Your task to perform on an android device: open app "Grab" (install if not already installed) Image 0: 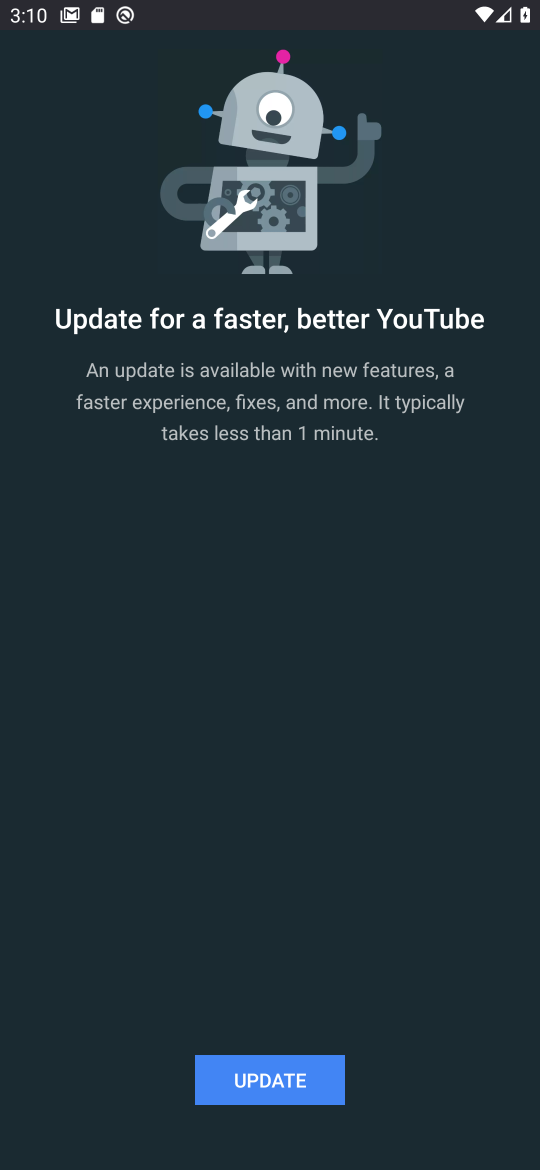
Step 0: press home button
Your task to perform on an android device: open app "Grab" (install if not already installed) Image 1: 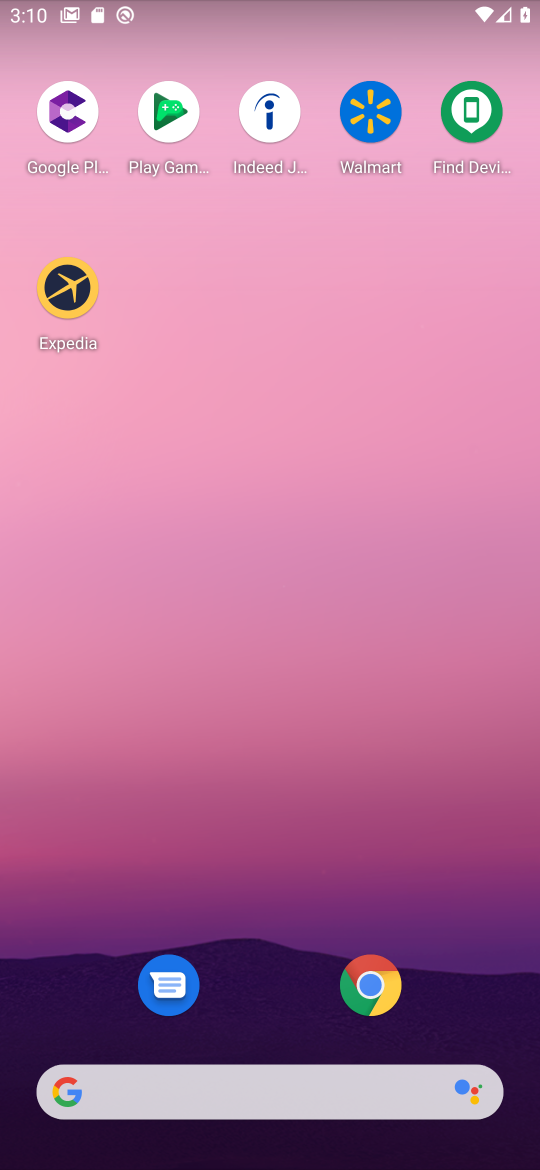
Step 1: drag from (211, 951) to (365, 8)
Your task to perform on an android device: open app "Grab" (install if not already installed) Image 2: 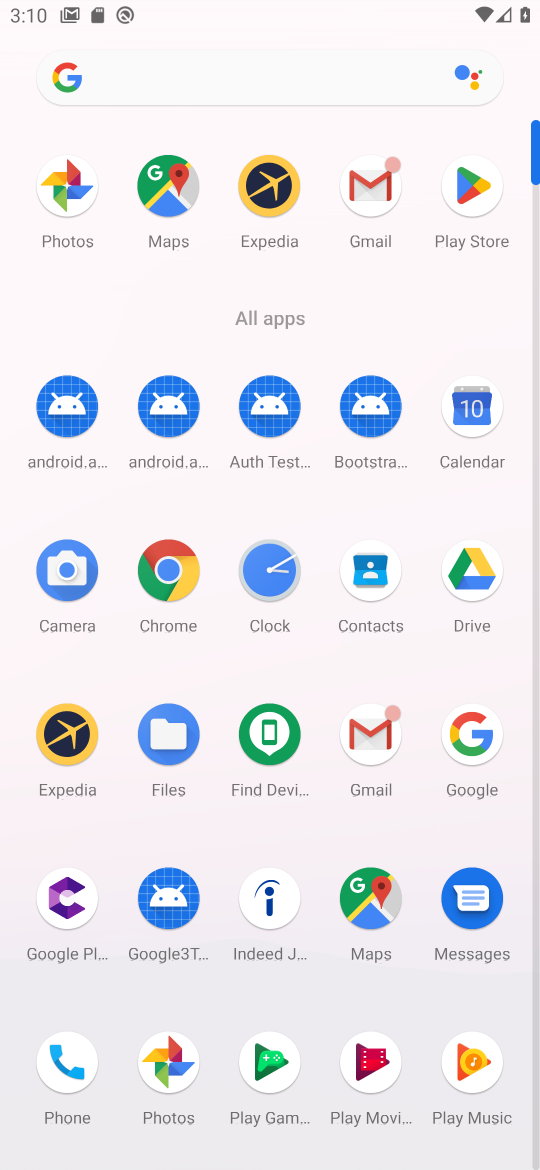
Step 2: click (474, 214)
Your task to perform on an android device: open app "Grab" (install if not already installed) Image 3: 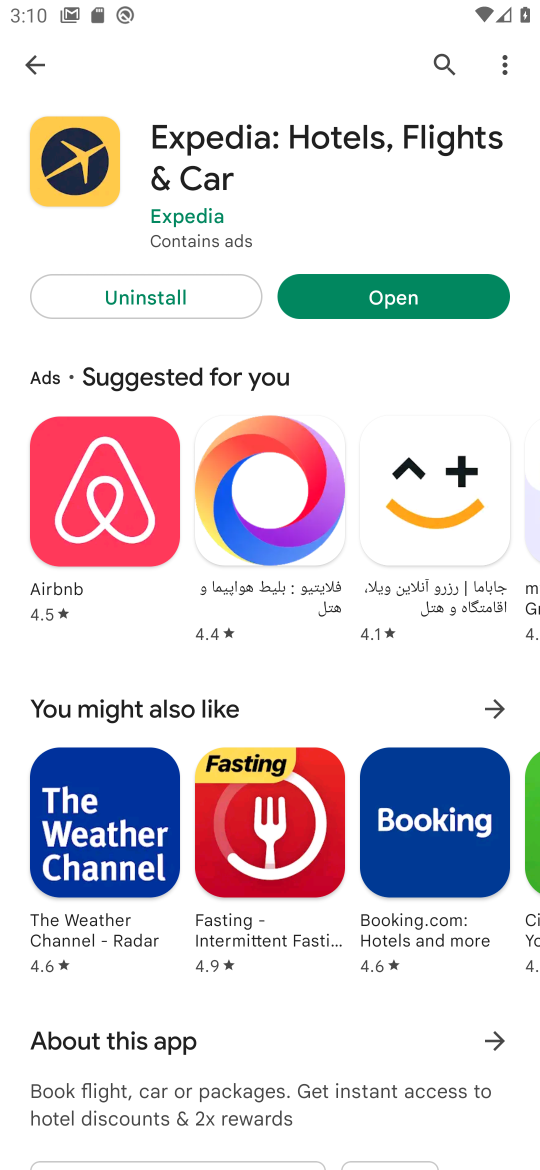
Step 3: click (41, 75)
Your task to perform on an android device: open app "Grab" (install if not already installed) Image 4: 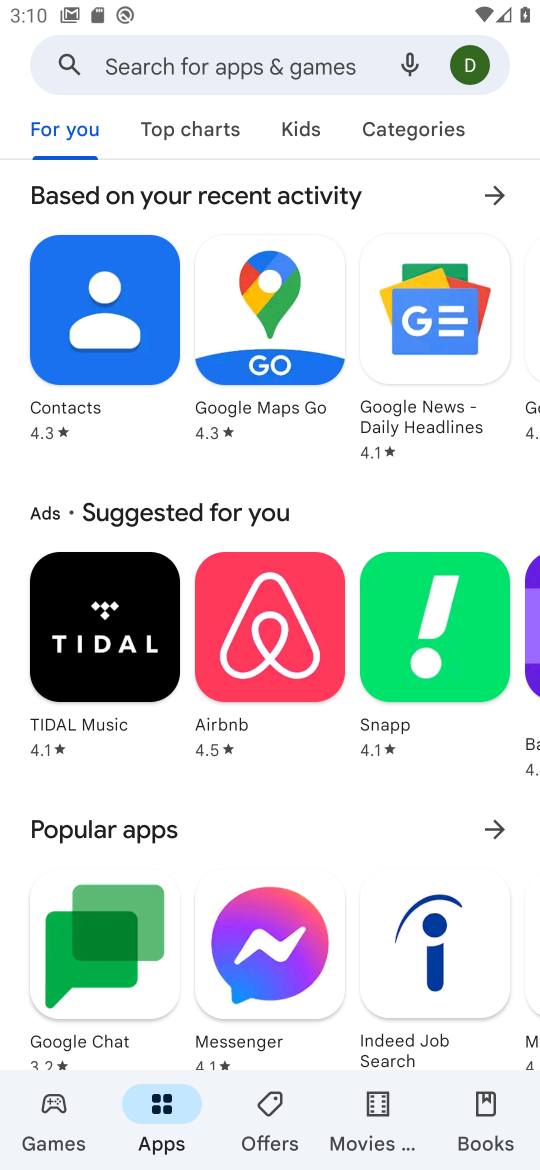
Step 4: click (189, 47)
Your task to perform on an android device: open app "Grab" (install if not already installed) Image 5: 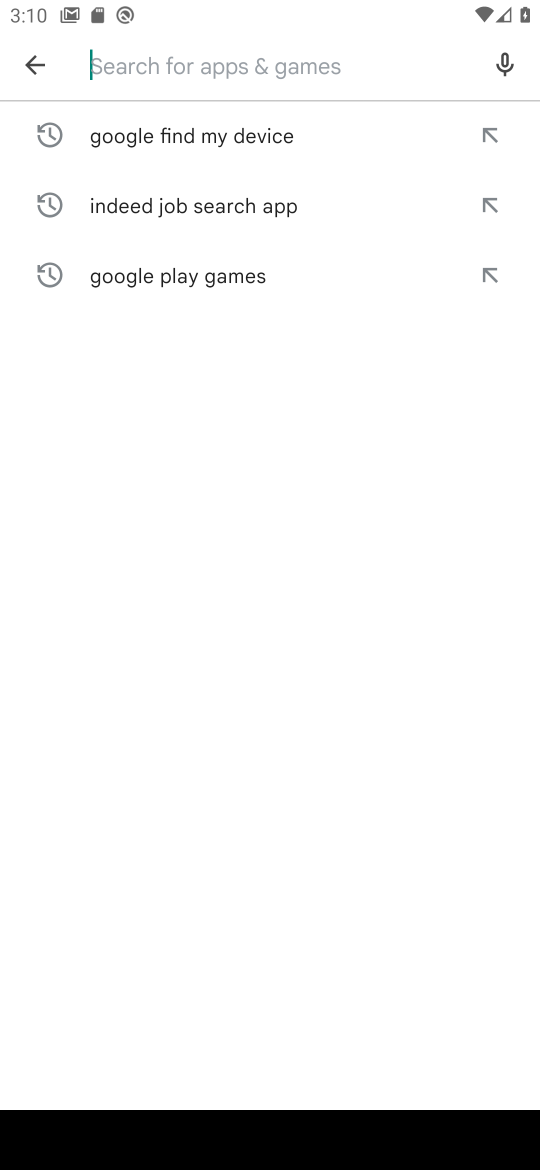
Step 5: type "Grab"
Your task to perform on an android device: open app "Grab" (install if not already installed) Image 6: 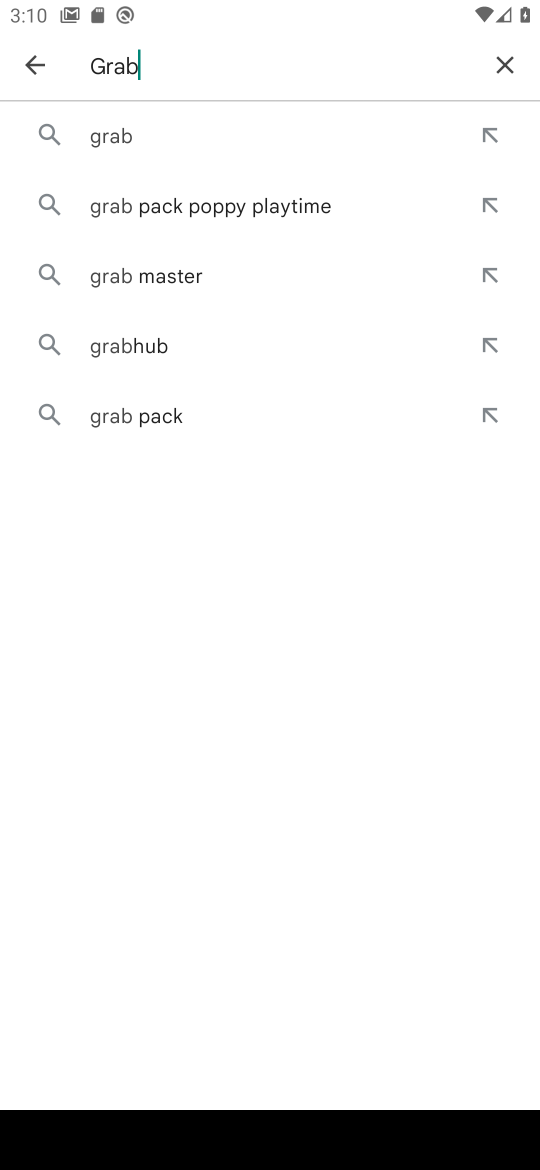
Step 6: click (122, 137)
Your task to perform on an android device: open app "Grab" (install if not already installed) Image 7: 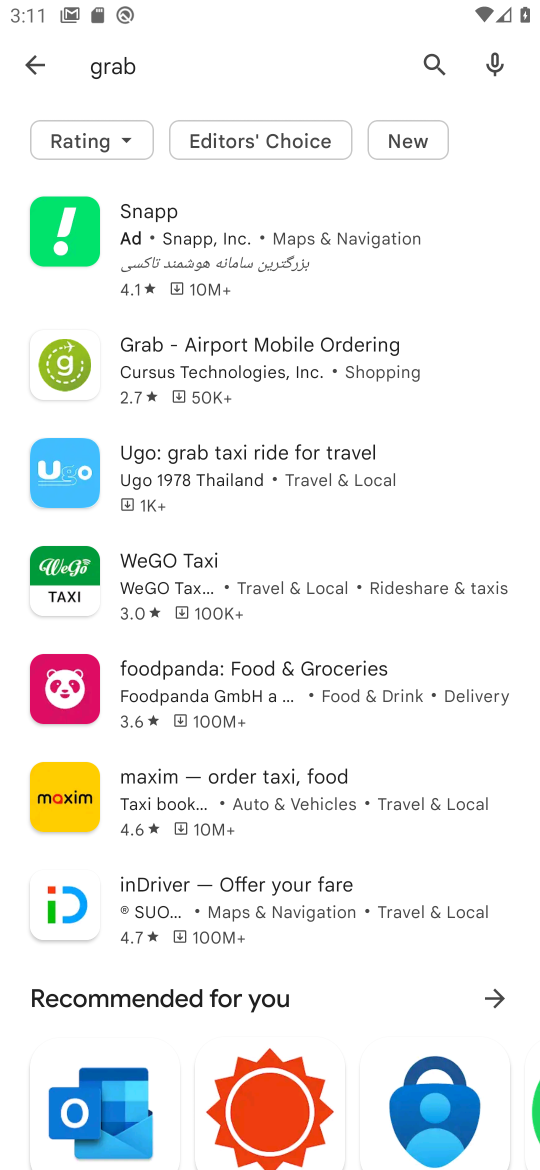
Step 7: click (32, 61)
Your task to perform on an android device: open app "Grab" (install if not already installed) Image 8: 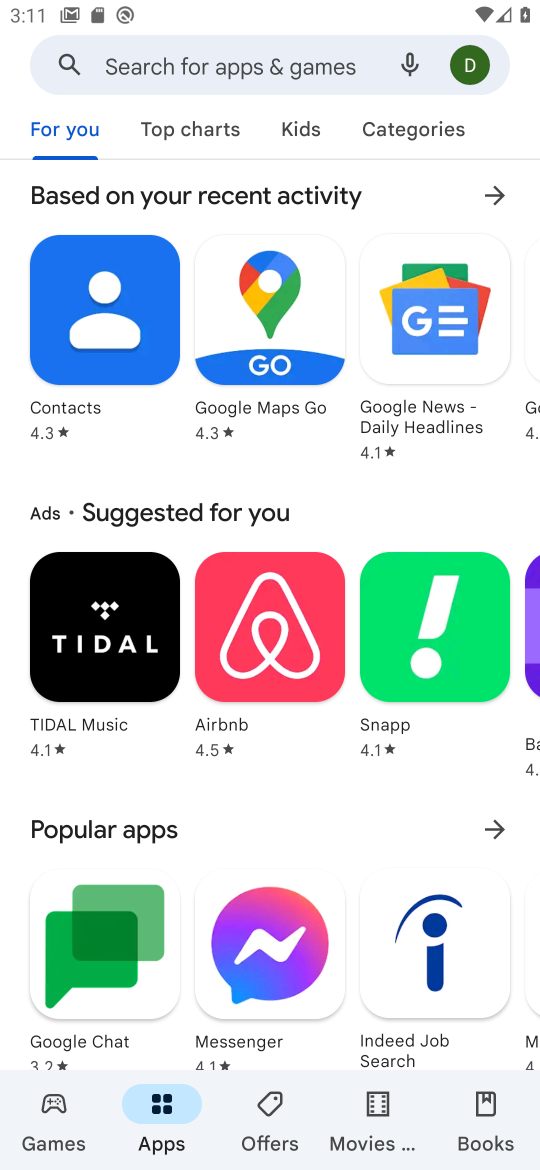
Step 8: click (241, 61)
Your task to perform on an android device: open app "Grab" (install if not already installed) Image 9: 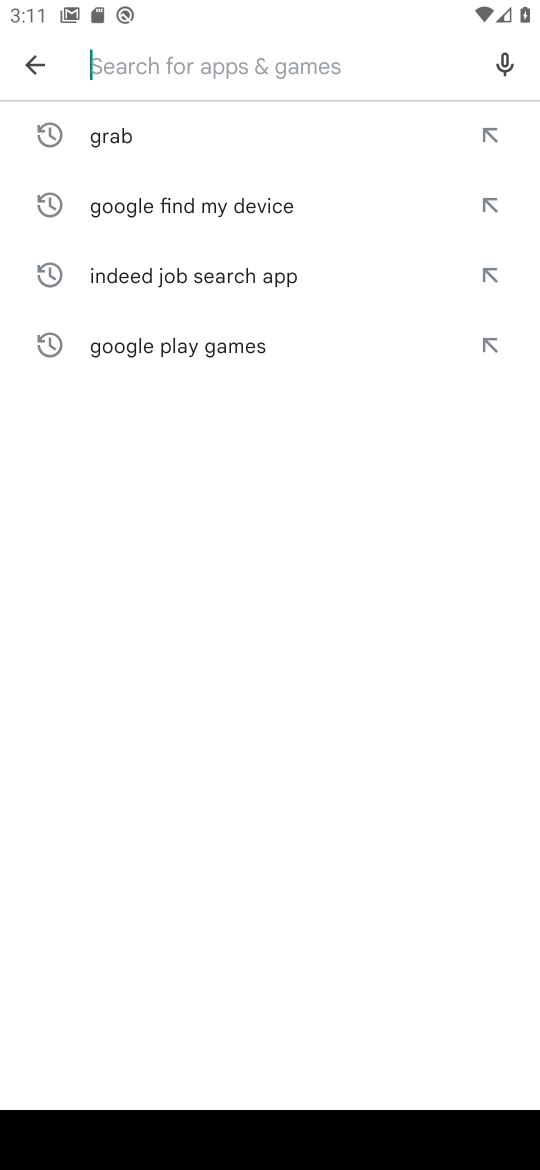
Step 9: type "Grab"
Your task to perform on an android device: open app "Grab" (install if not already installed) Image 10: 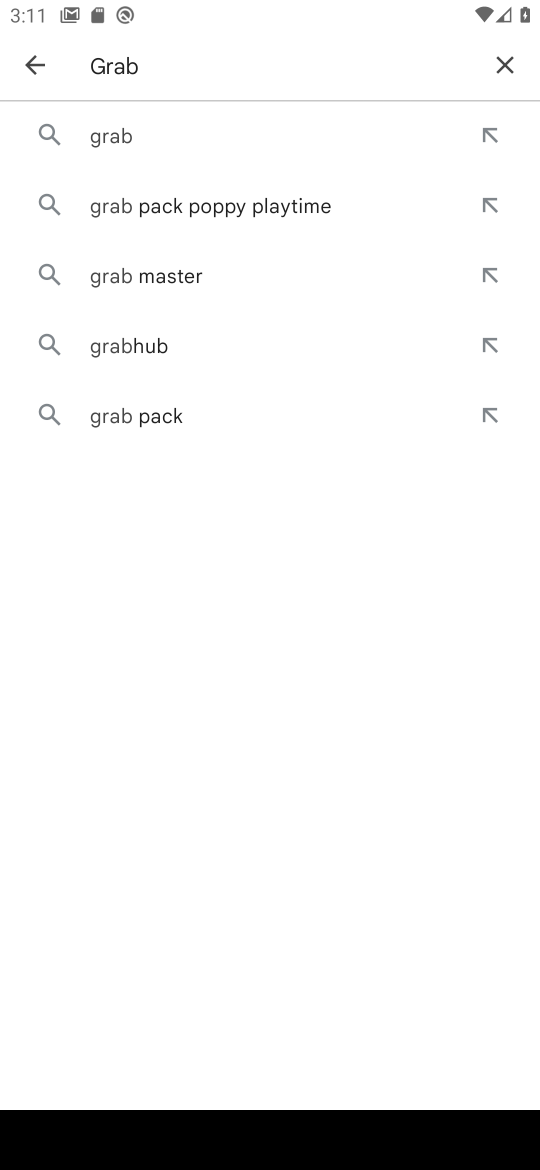
Step 10: click (107, 135)
Your task to perform on an android device: open app "Grab" (install if not already installed) Image 11: 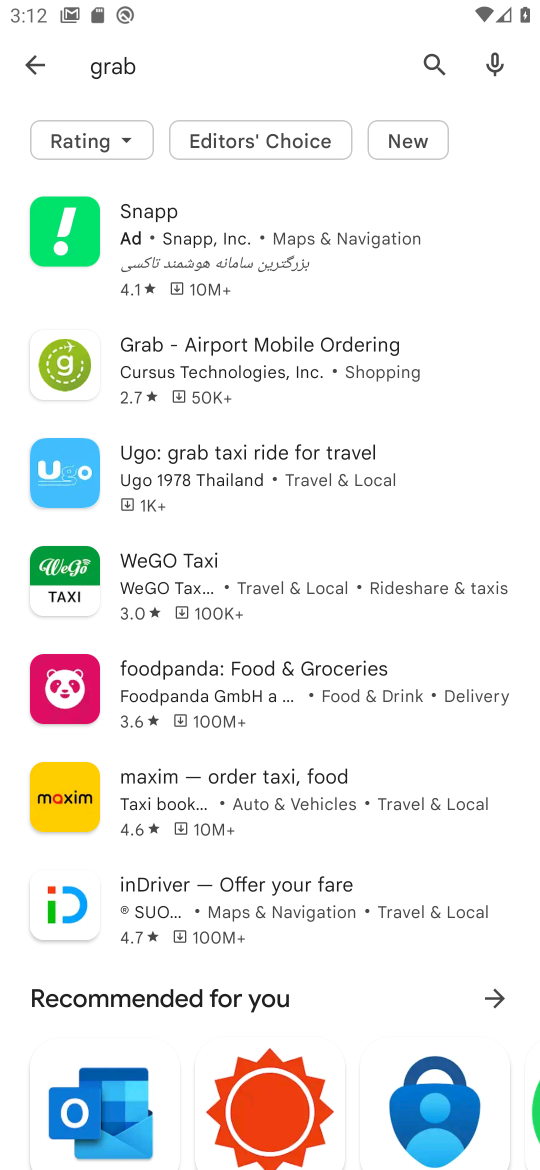
Step 11: click (157, 354)
Your task to perform on an android device: open app "Grab" (install if not already installed) Image 12: 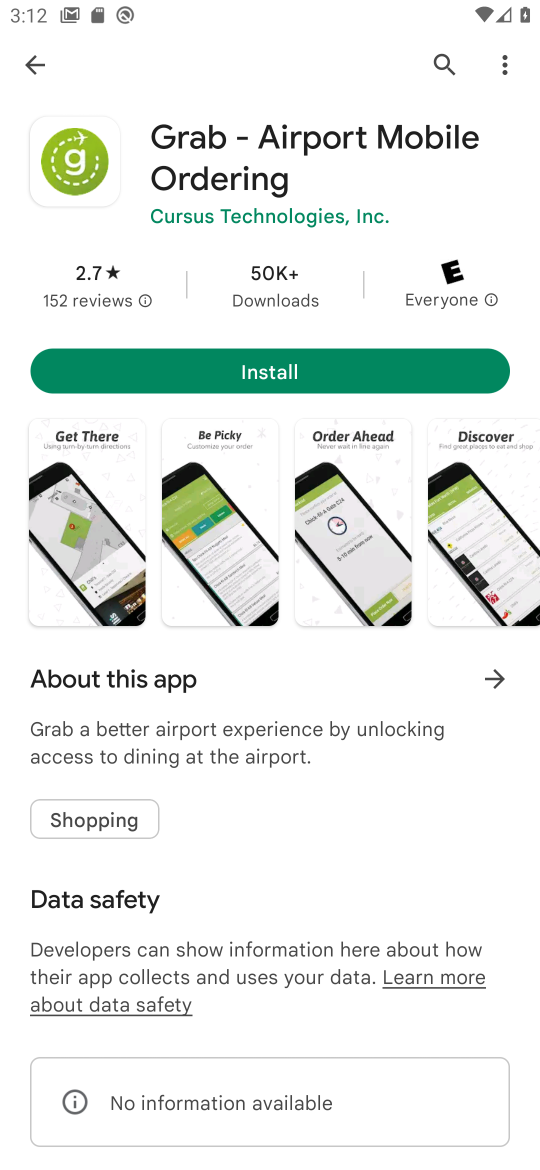
Step 12: click (254, 382)
Your task to perform on an android device: open app "Grab" (install if not already installed) Image 13: 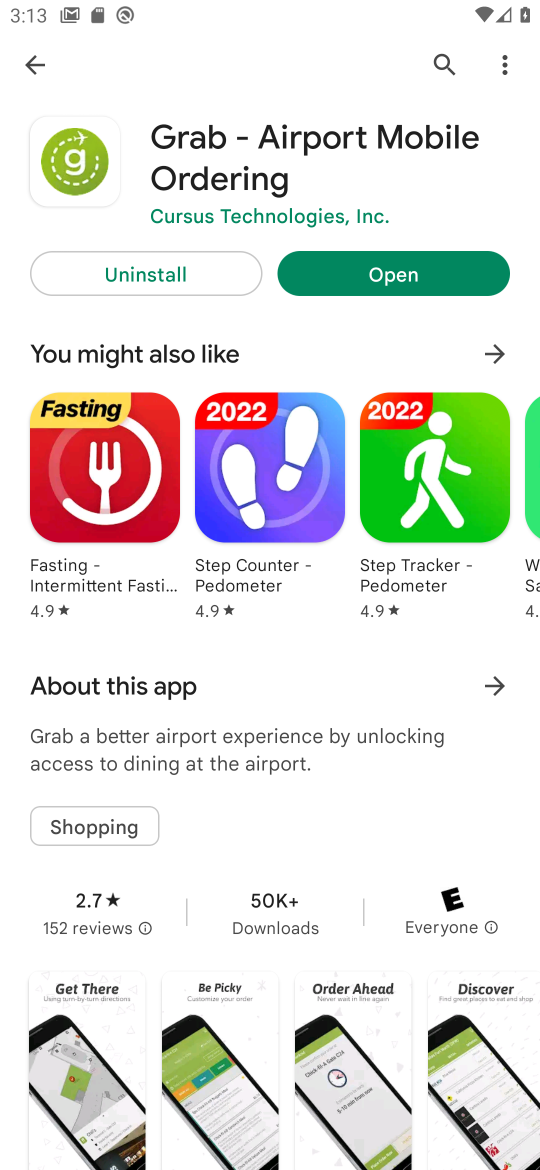
Step 13: click (395, 262)
Your task to perform on an android device: open app "Grab" (install if not already installed) Image 14: 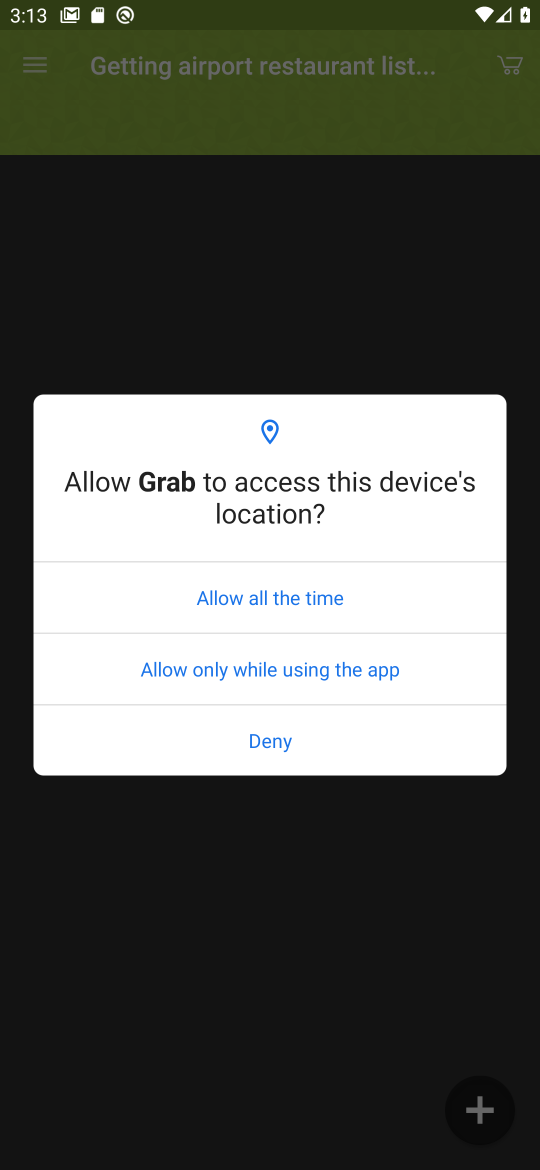
Step 14: click (261, 601)
Your task to perform on an android device: open app "Grab" (install if not already installed) Image 15: 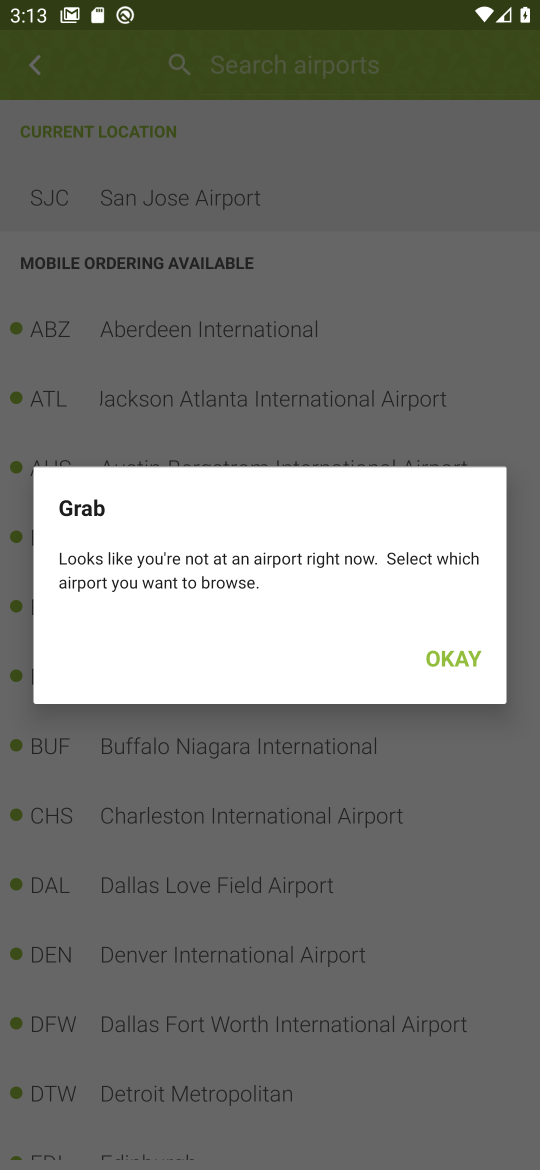
Step 15: click (442, 656)
Your task to perform on an android device: open app "Grab" (install if not already installed) Image 16: 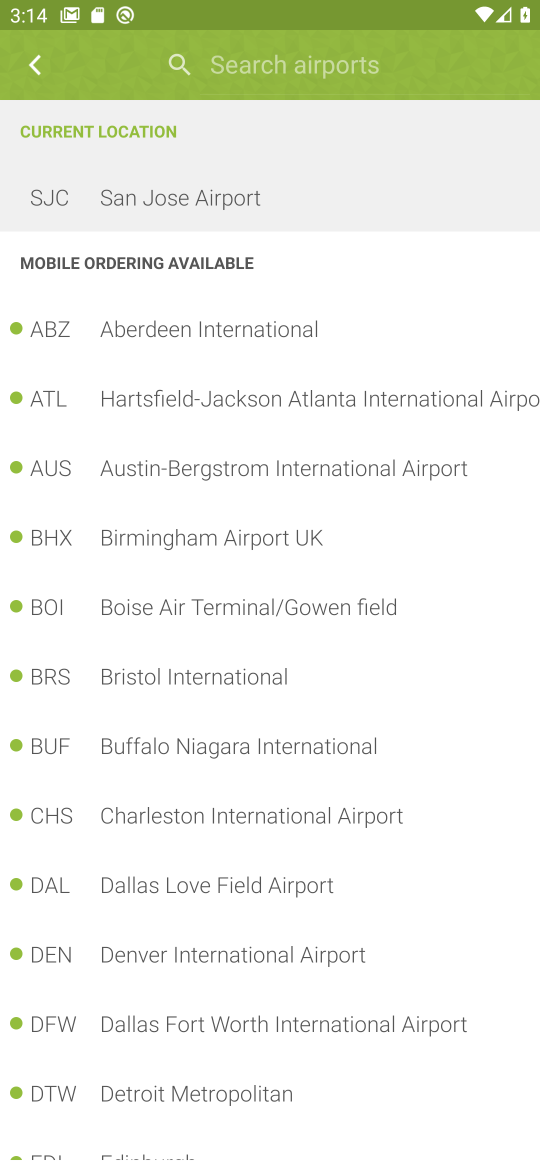
Step 16: task complete